Your task to perform on an android device: Open the calendar and show me this week's events Image 0: 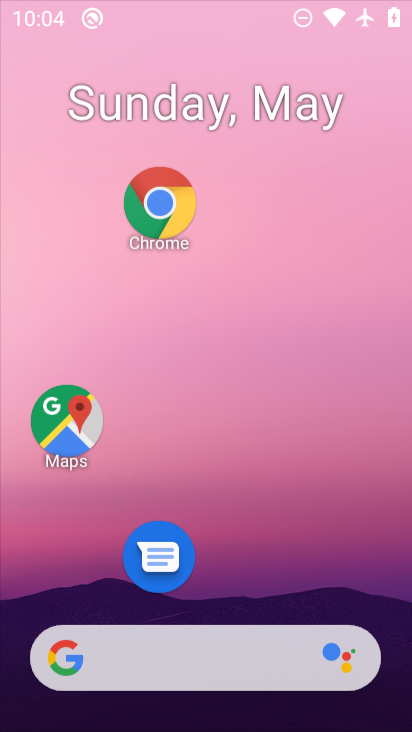
Step 0: press home button
Your task to perform on an android device: Open the calendar and show me this week's events Image 1: 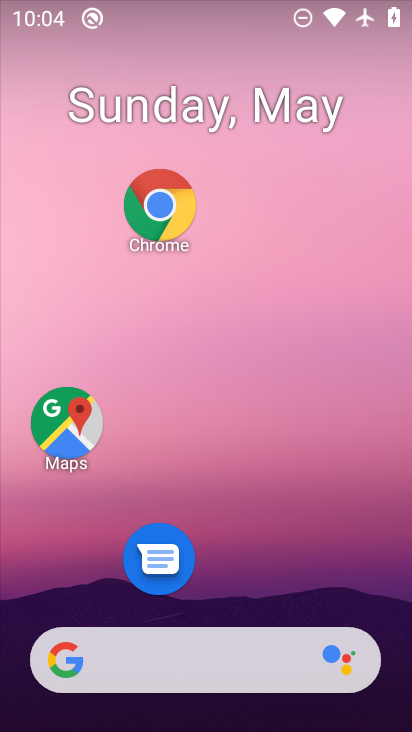
Step 1: drag from (299, 604) to (302, 100)
Your task to perform on an android device: Open the calendar and show me this week's events Image 2: 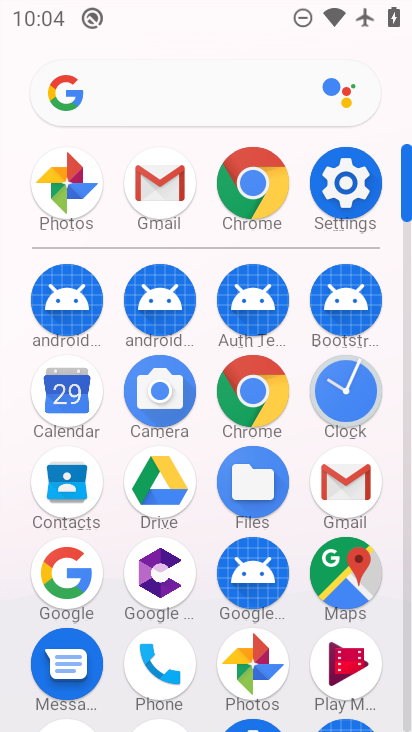
Step 2: click (48, 401)
Your task to perform on an android device: Open the calendar and show me this week's events Image 3: 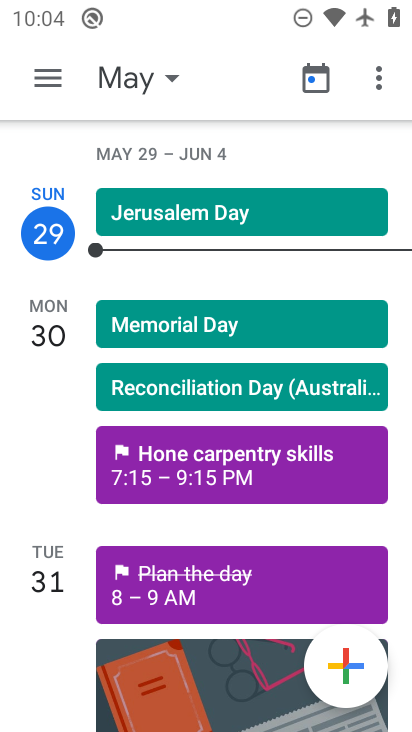
Step 3: task complete